Your task to perform on an android device: Go to accessibility settings Image 0: 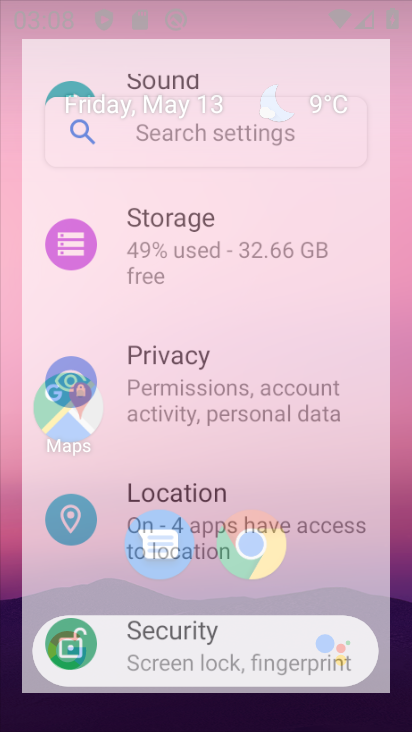
Step 0: drag from (331, 545) to (224, 34)
Your task to perform on an android device: Go to accessibility settings Image 1: 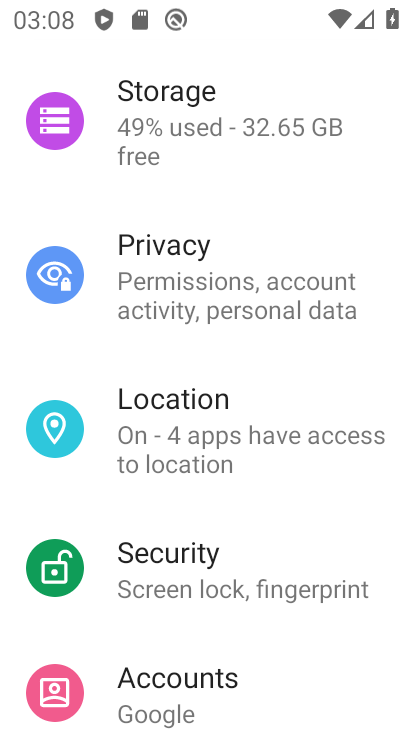
Step 1: drag from (271, 495) to (279, 142)
Your task to perform on an android device: Go to accessibility settings Image 2: 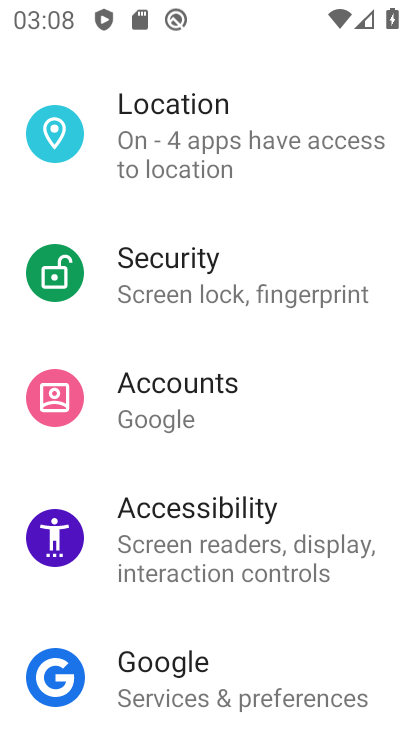
Step 2: click (193, 540)
Your task to perform on an android device: Go to accessibility settings Image 3: 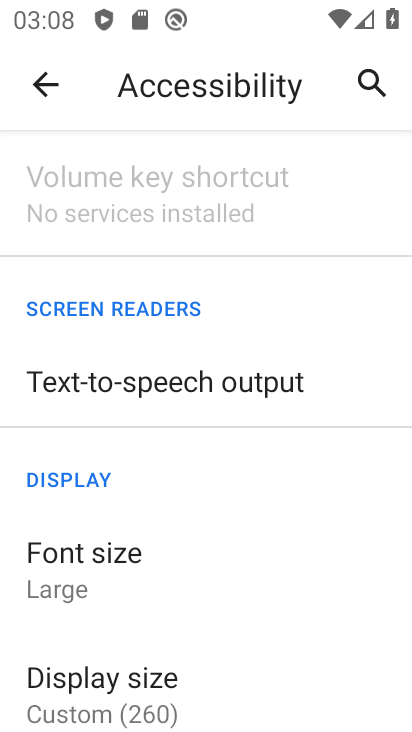
Step 3: task complete